Your task to perform on an android device: Go to privacy settings Image 0: 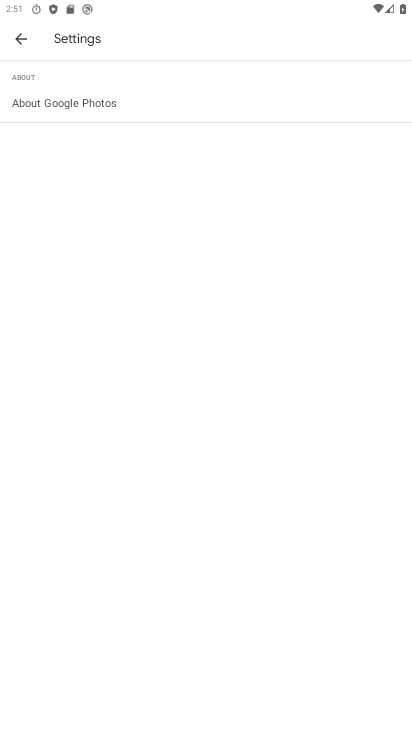
Step 0: press home button
Your task to perform on an android device: Go to privacy settings Image 1: 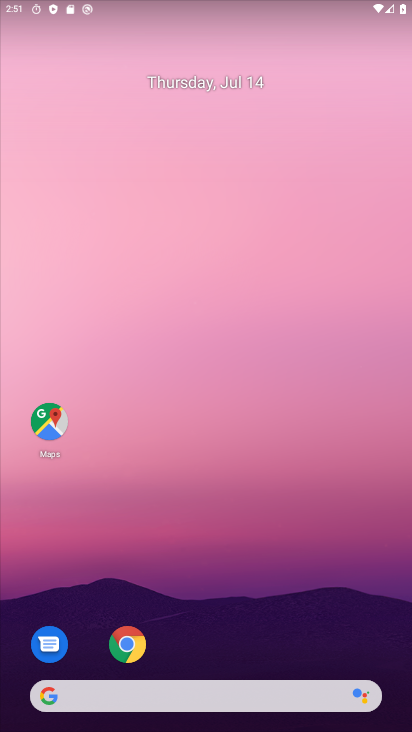
Step 1: drag from (18, 704) to (147, 226)
Your task to perform on an android device: Go to privacy settings Image 2: 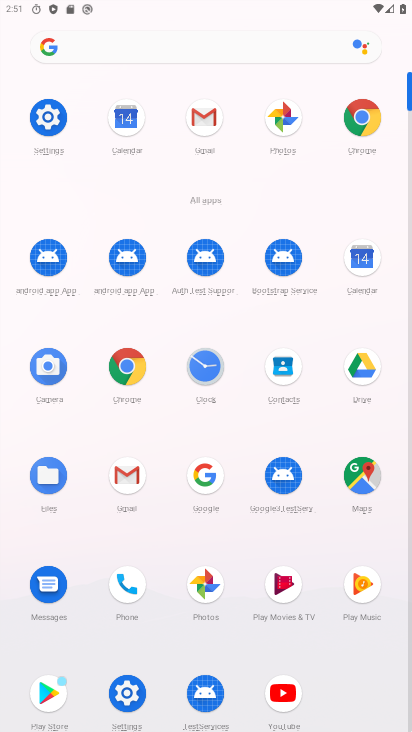
Step 2: click (138, 698)
Your task to perform on an android device: Go to privacy settings Image 3: 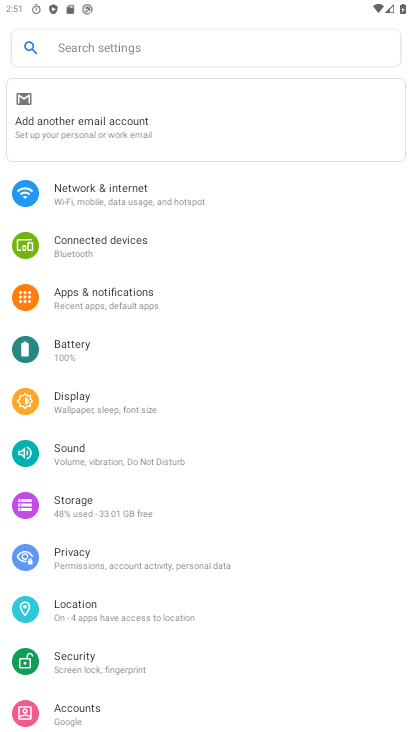
Step 3: click (79, 555)
Your task to perform on an android device: Go to privacy settings Image 4: 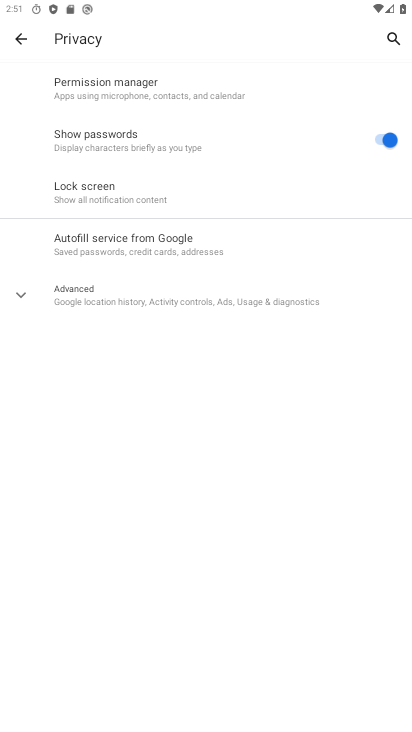
Step 4: task complete